Your task to perform on an android device: Check the news Image 0: 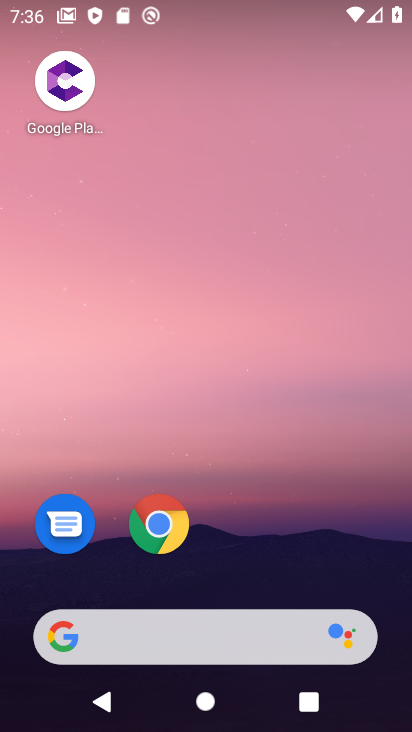
Step 0: click (220, 638)
Your task to perform on an android device: Check the news Image 1: 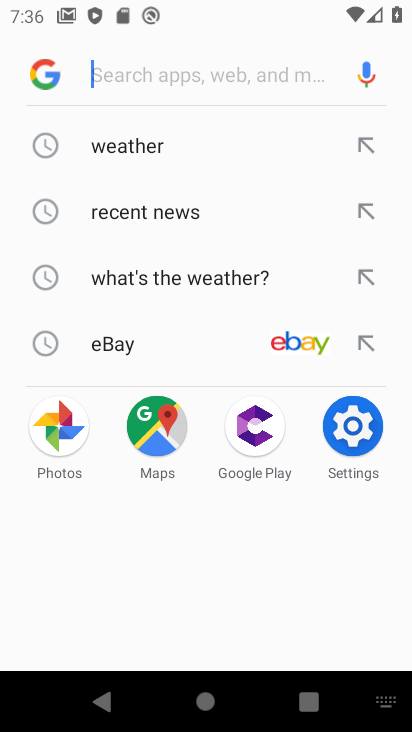
Step 1: click (132, 211)
Your task to perform on an android device: Check the news Image 2: 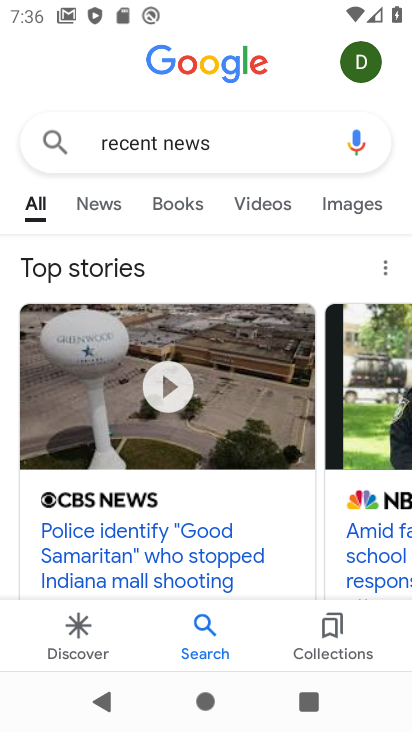
Step 2: task complete